Your task to perform on an android device: add a contact in the contacts app Image 0: 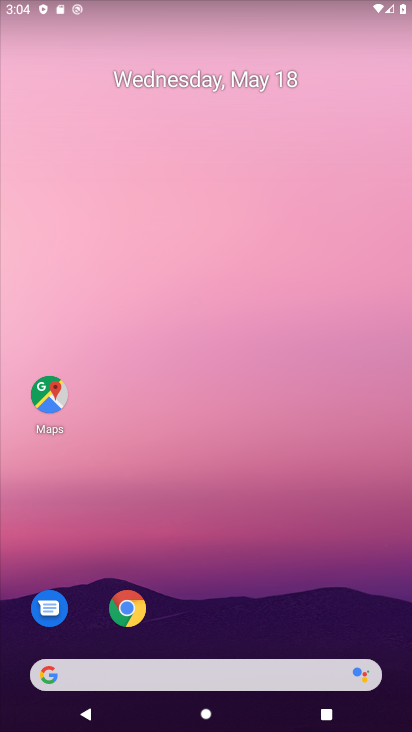
Step 0: drag from (196, 620) to (310, 108)
Your task to perform on an android device: add a contact in the contacts app Image 1: 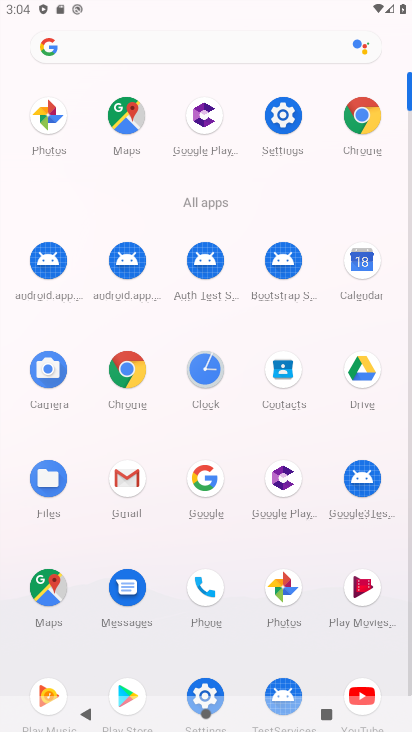
Step 1: click (281, 373)
Your task to perform on an android device: add a contact in the contacts app Image 2: 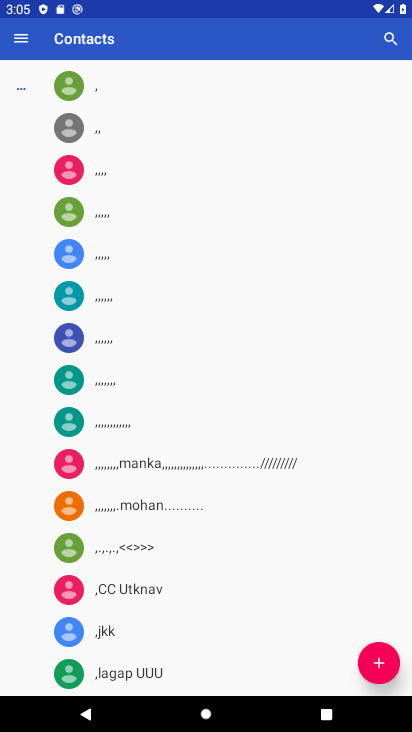
Step 2: click (382, 652)
Your task to perform on an android device: add a contact in the contacts app Image 3: 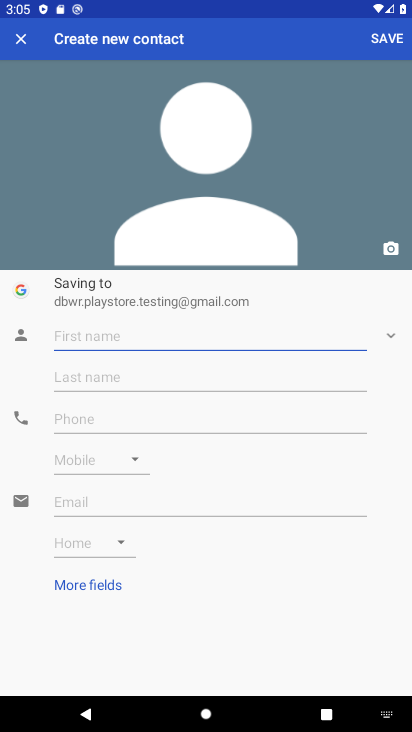
Step 3: type ""
Your task to perform on an android device: add a contact in the contacts app Image 4: 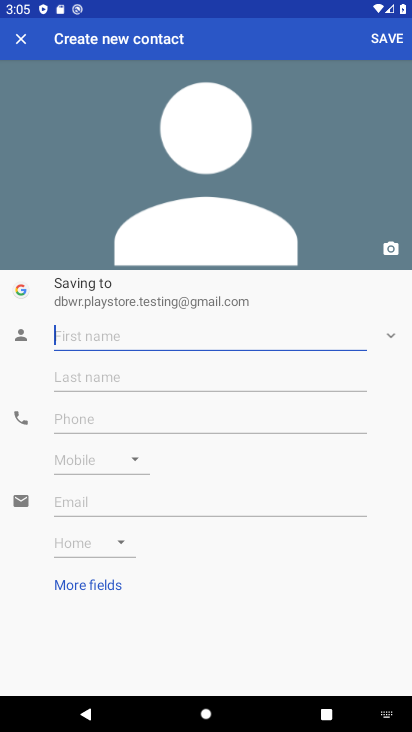
Step 4: type "an"
Your task to perform on an android device: add a contact in the contacts app Image 5: 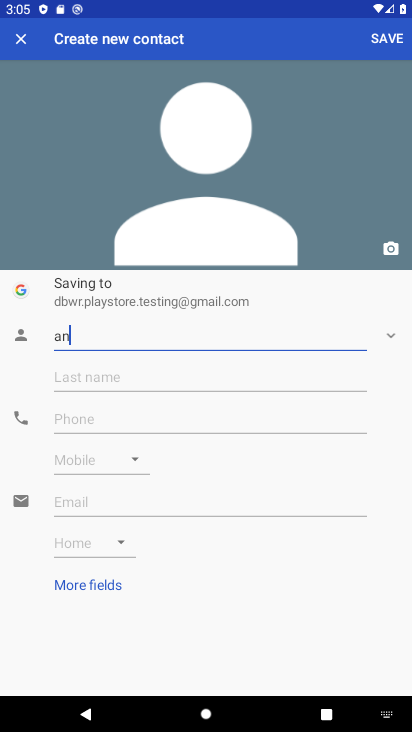
Step 5: click (169, 428)
Your task to perform on an android device: add a contact in the contacts app Image 6: 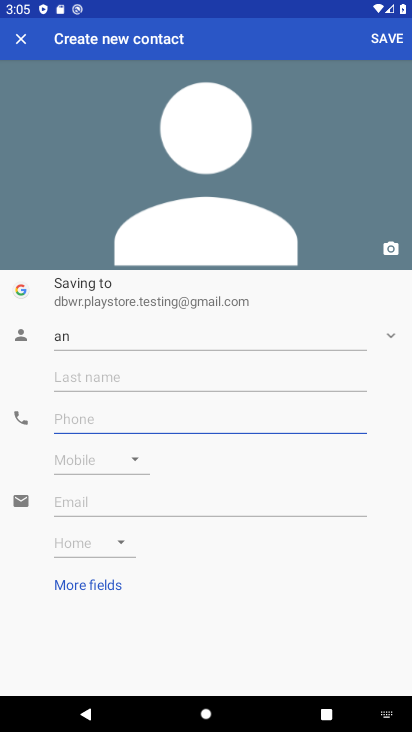
Step 6: type "6789098789"
Your task to perform on an android device: add a contact in the contacts app Image 7: 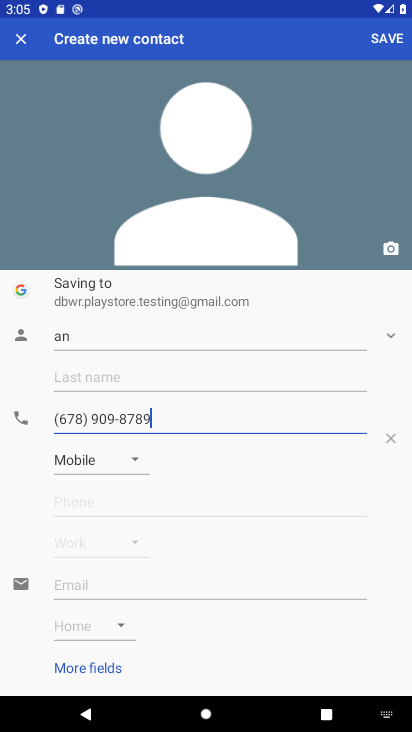
Step 7: type ""
Your task to perform on an android device: add a contact in the contacts app Image 8: 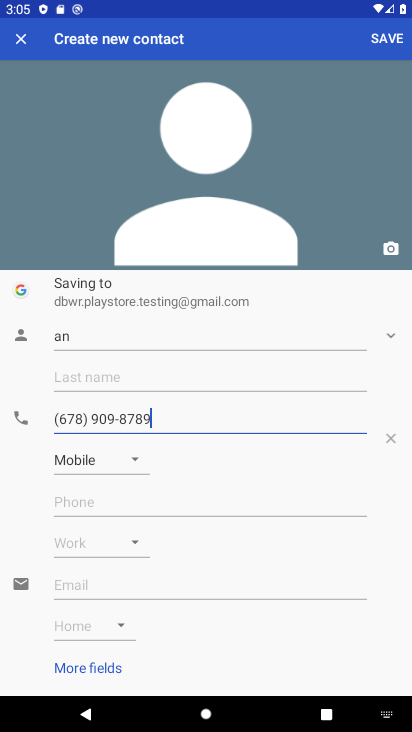
Step 8: click (370, 41)
Your task to perform on an android device: add a contact in the contacts app Image 9: 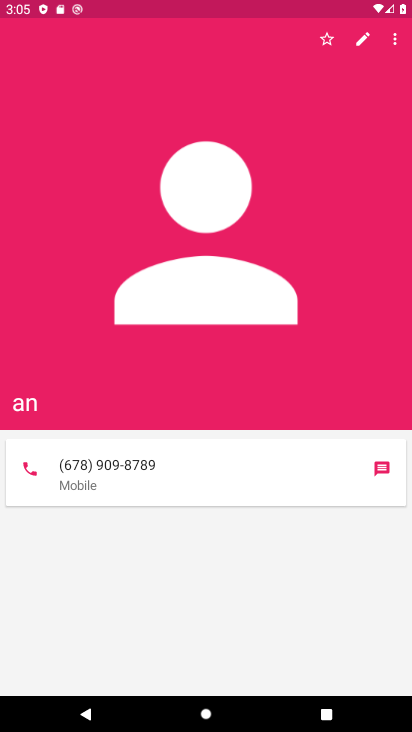
Step 9: task complete